Your task to perform on an android device: Open calendar and show me the third week of next month Image 0: 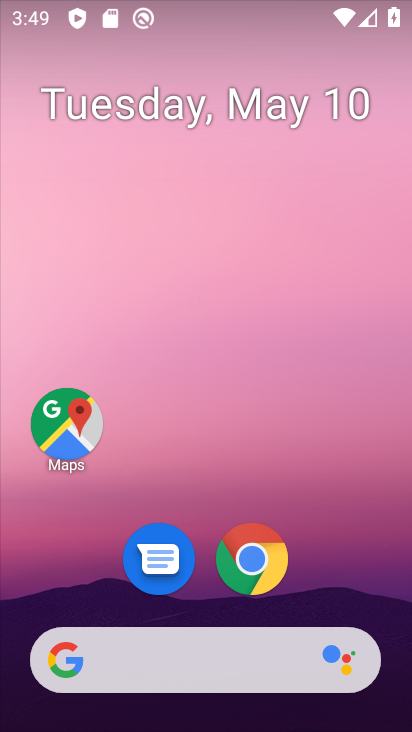
Step 0: drag from (99, 630) to (250, 58)
Your task to perform on an android device: Open calendar and show me the third week of next month Image 1: 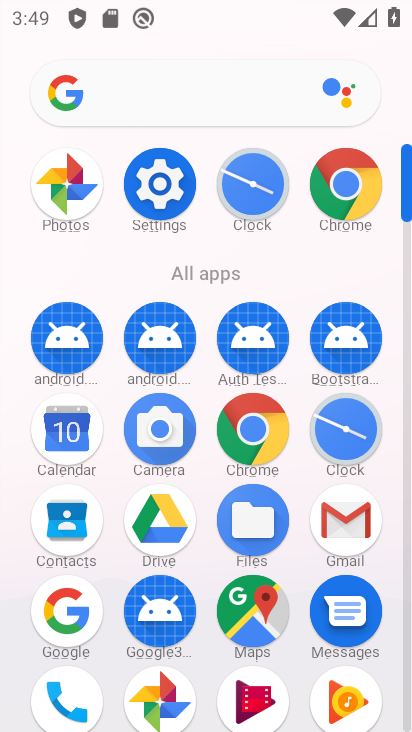
Step 1: click (67, 429)
Your task to perform on an android device: Open calendar and show me the third week of next month Image 2: 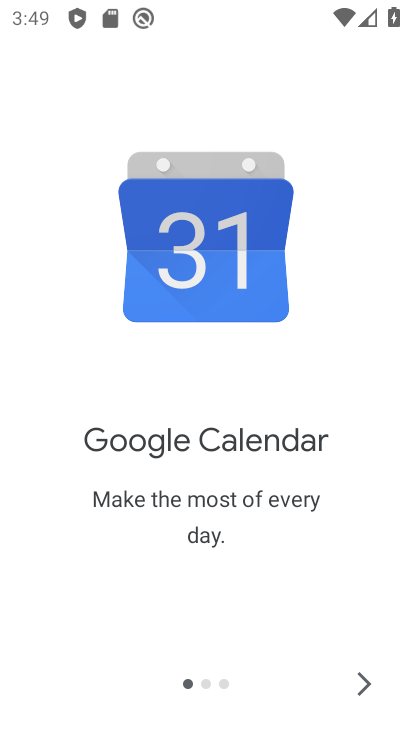
Step 2: click (359, 679)
Your task to perform on an android device: Open calendar and show me the third week of next month Image 3: 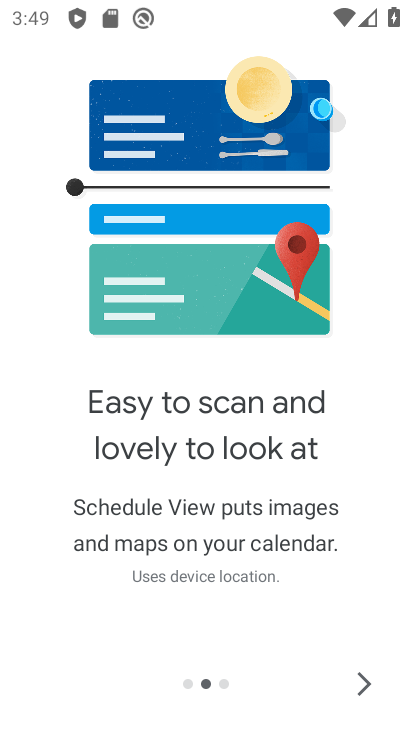
Step 3: click (365, 684)
Your task to perform on an android device: Open calendar and show me the third week of next month Image 4: 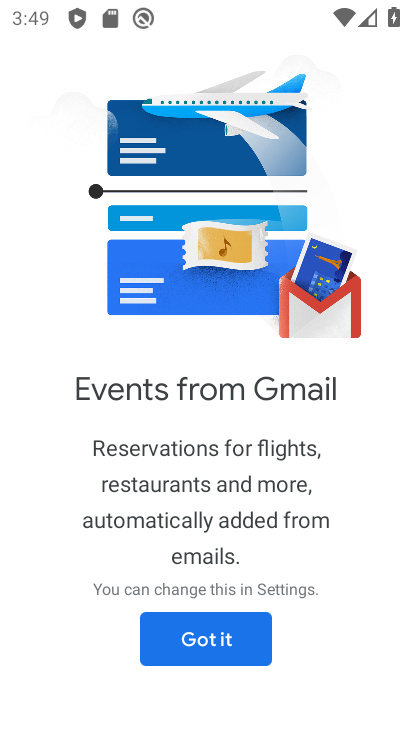
Step 4: click (241, 643)
Your task to perform on an android device: Open calendar and show me the third week of next month Image 5: 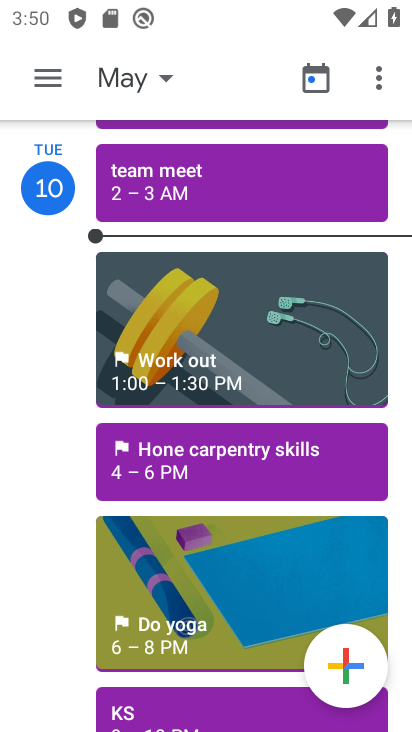
Step 5: click (55, 76)
Your task to perform on an android device: Open calendar and show me the third week of next month Image 6: 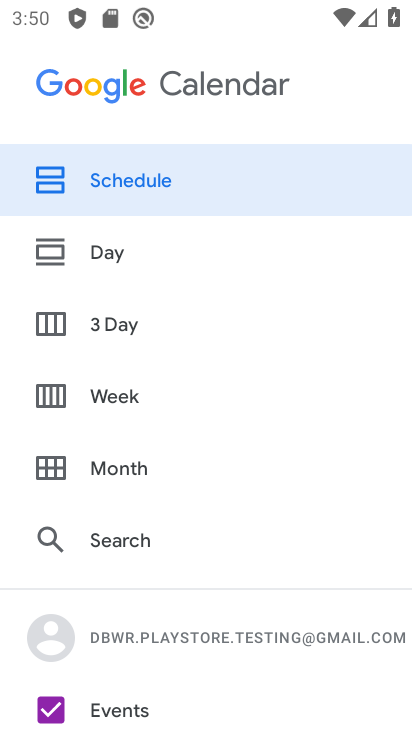
Step 6: click (162, 408)
Your task to perform on an android device: Open calendar and show me the third week of next month Image 7: 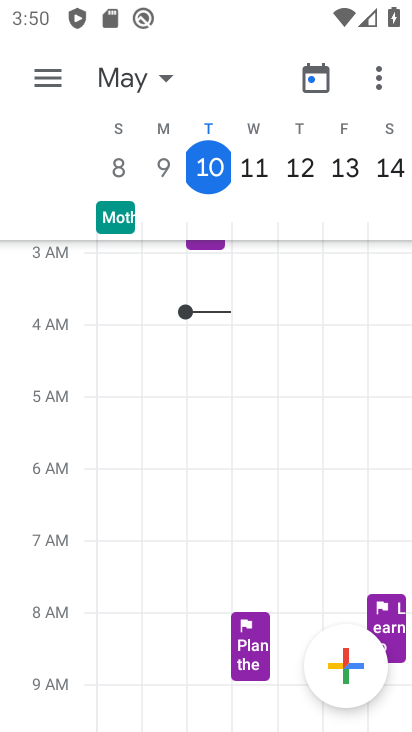
Step 7: click (147, 82)
Your task to perform on an android device: Open calendar and show me the third week of next month Image 8: 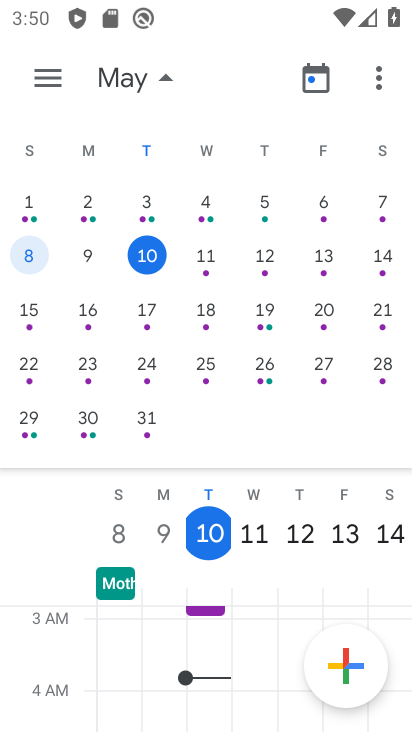
Step 8: drag from (305, 363) to (44, 346)
Your task to perform on an android device: Open calendar and show me the third week of next month Image 9: 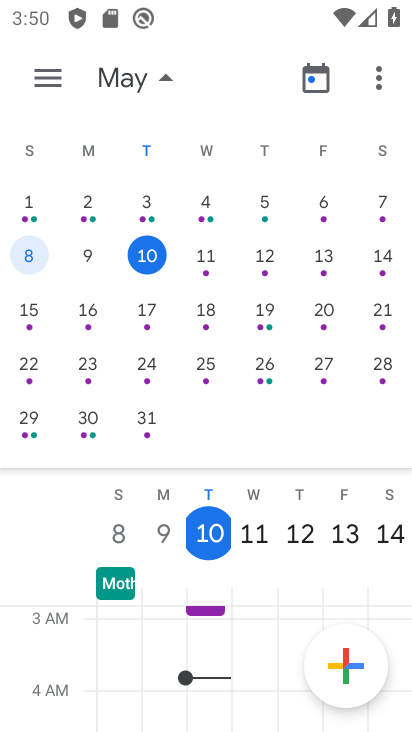
Step 9: click (32, 368)
Your task to perform on an android device: Open calendar and show me the third week of next month Image 10: 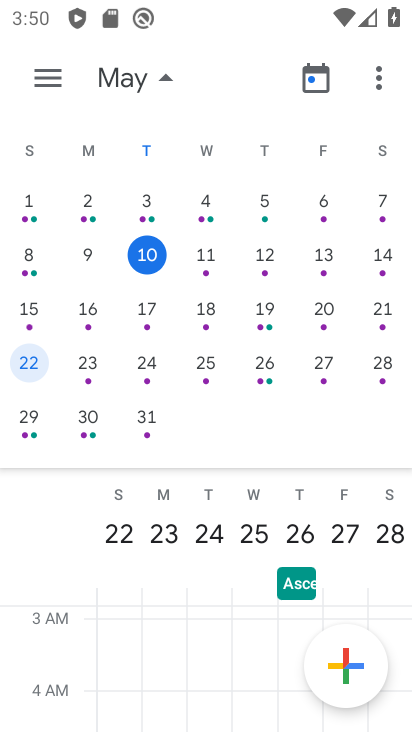
Step 10: click (142, 91)
Your task to perform on an android device: Open calendar and show me the third week of next month Image 11: 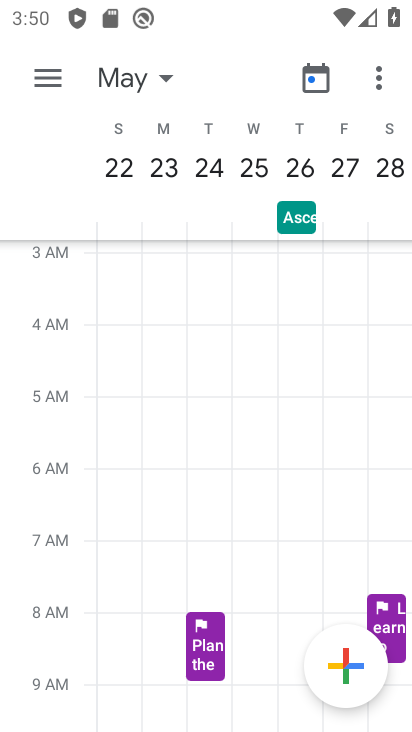
Step 11: task complete